Your task to perform on an android device: change alarm snooze length Image 0: 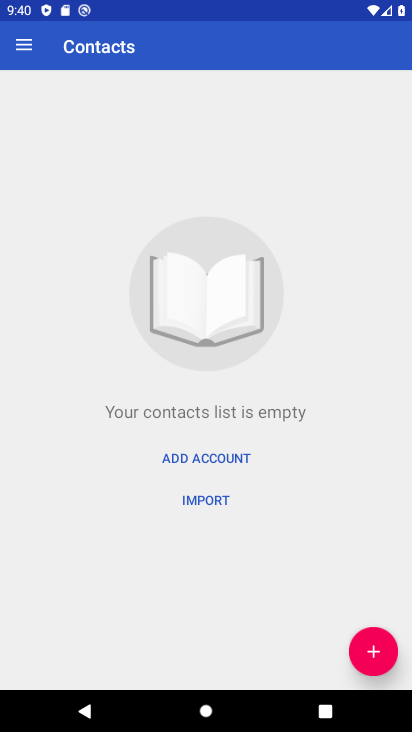
Step 0: press home button
Your task to perform on an android device: change alarm snooze length Image 1: 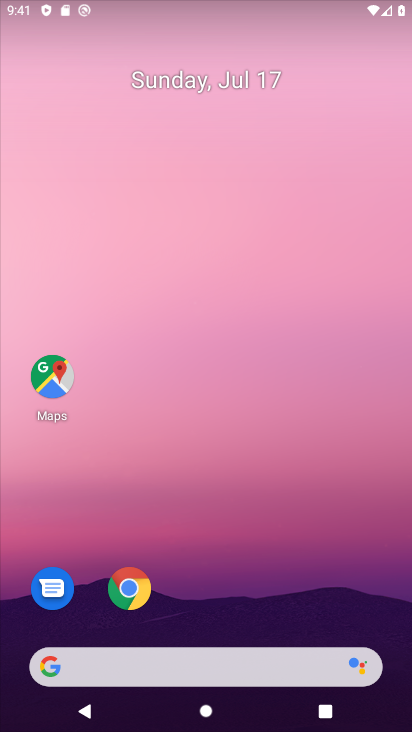
Step 1: drag from (207, 610) to (131, 1)
Your task to perform on an android device: change alarm snooze length Image 2: 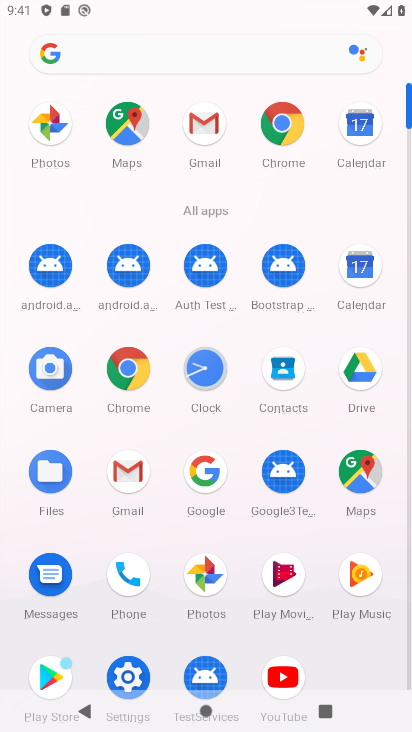
Step 2: click (215, 390)
Your task to perform on an android device: change alarm snooze length Image 3: 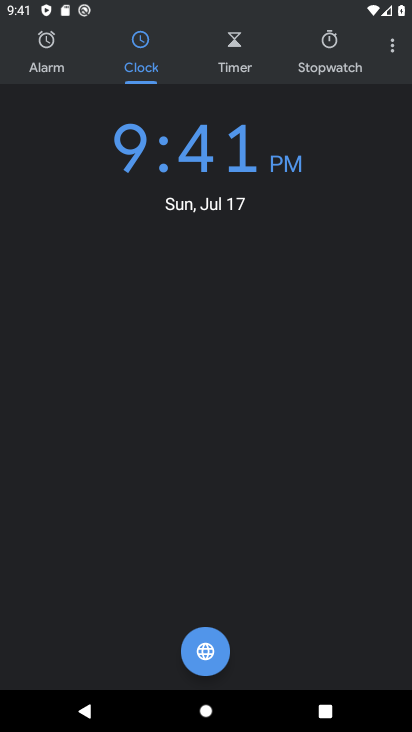
Step 3: click (382, 44)
Your task to perform on an android device: change alarm snooze length Image 4: 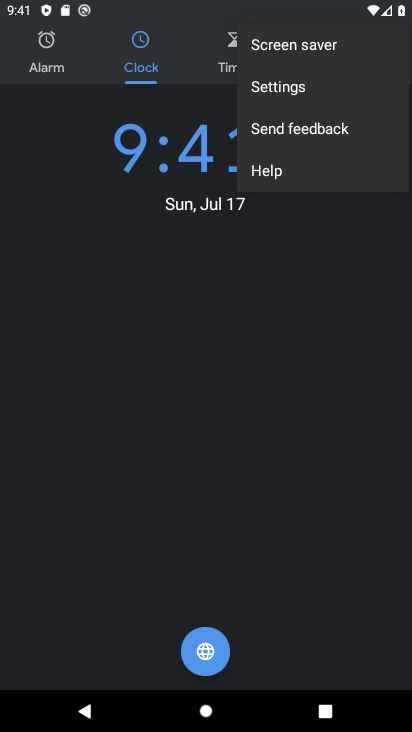
Step 4: click (275, 98)
Your task to perform on an android device: change alarm snooze length Image 5: 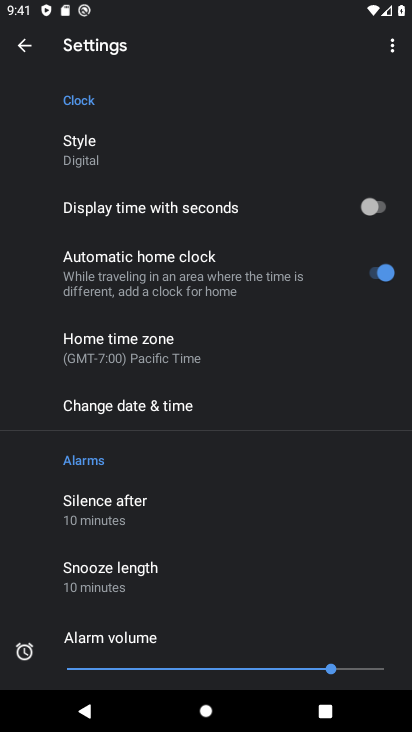
Step 5: drag from (273, 447) to (280, 277)
Your task to perform on an android device: change alarm snooze length Image 6: 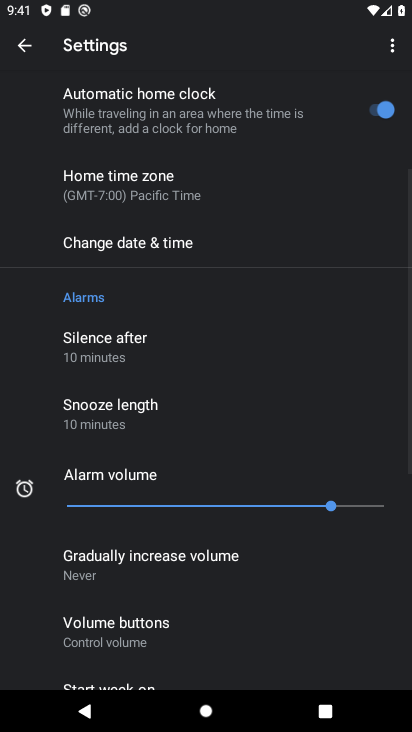
Step 6: click (145, 403)
Your task to perform on an android device: change alarm snooze length Image 7: 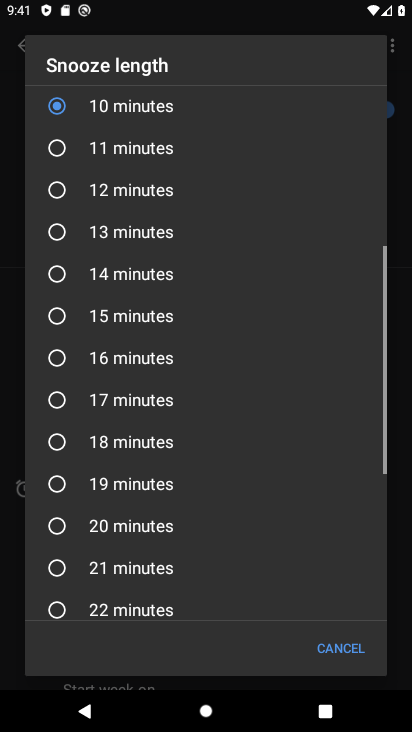
Step 7: click (146, 149)
Your task to perform on an android device: change alarm snooze length Image 8: 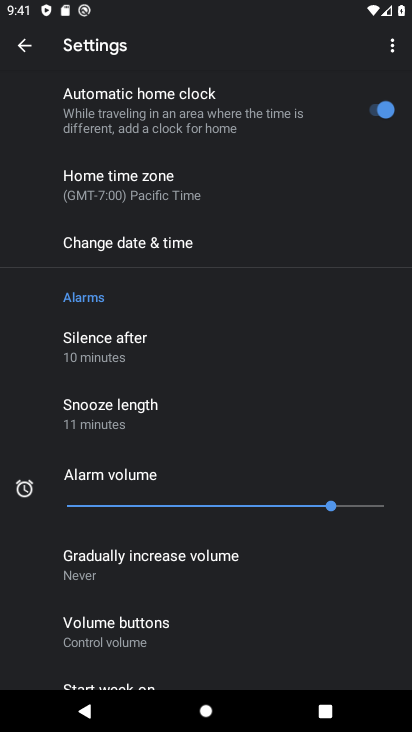
Step 8: click (124, 426)
Your task to perform on an android device: change alarm snooze length Image 9: 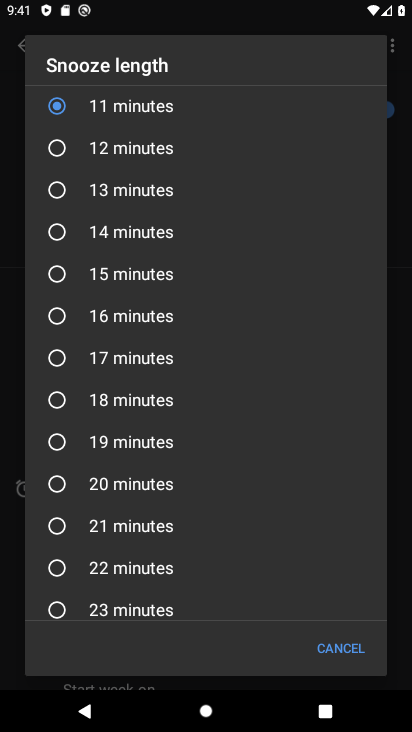
Step 9: click (102, 150)
Your task to perform on an android device: change alarm snooze length Image 10: 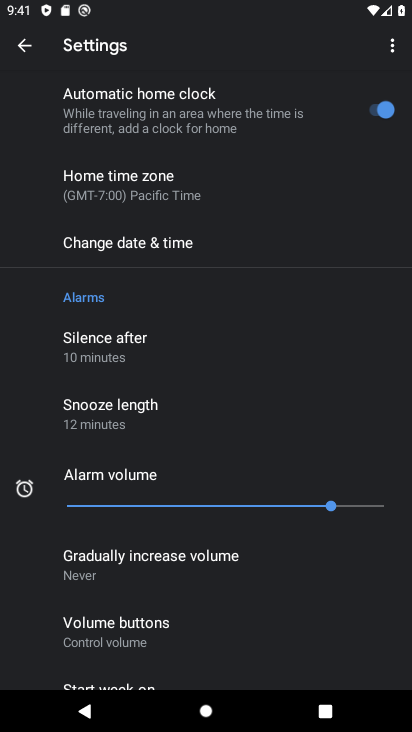
Step 10: task complete